Your task to perform on an android device: What's the weather? Image 0: 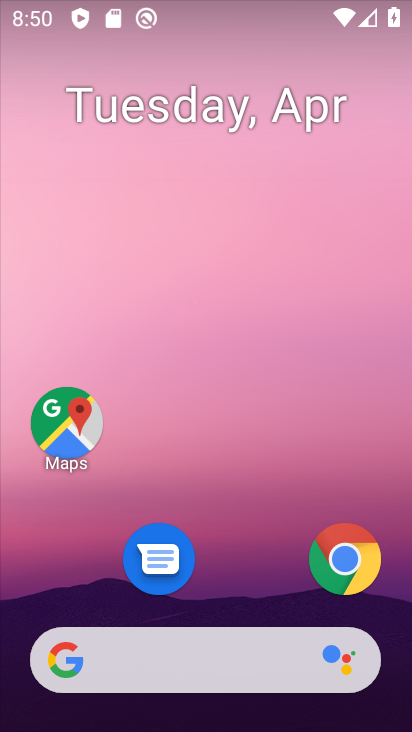
Step 0: drag from (189, 685) to (169, 149)
Your task to perform on an android device: What's the weather? Image 1: 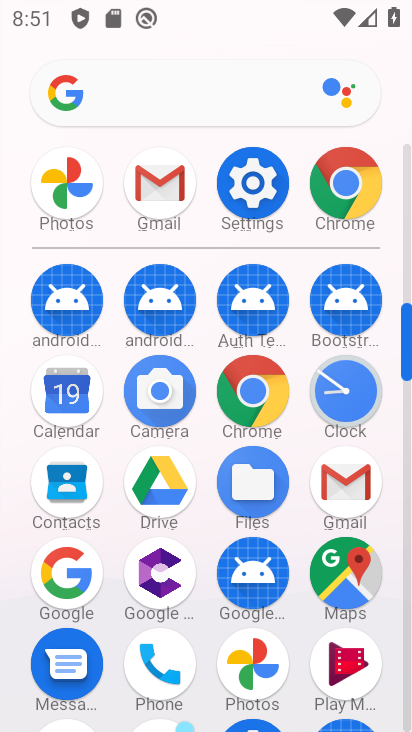
Step 1: click (74, 387)
Your task to perform on an android device: What's the weather? Image 2: 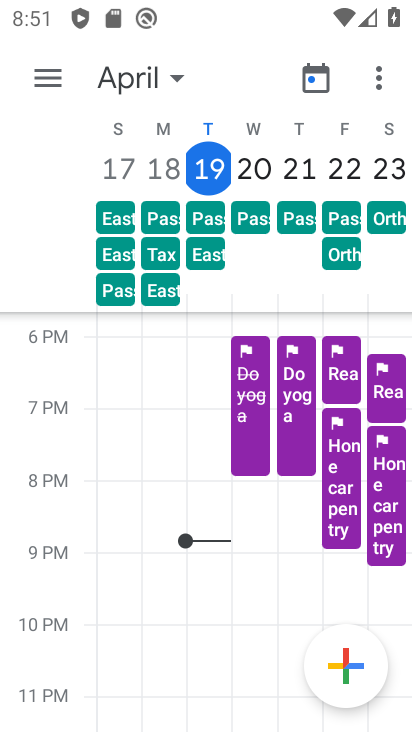
Step 2: click (51, 84)
Your task to perform on an android device: What's the weather? Image 3: 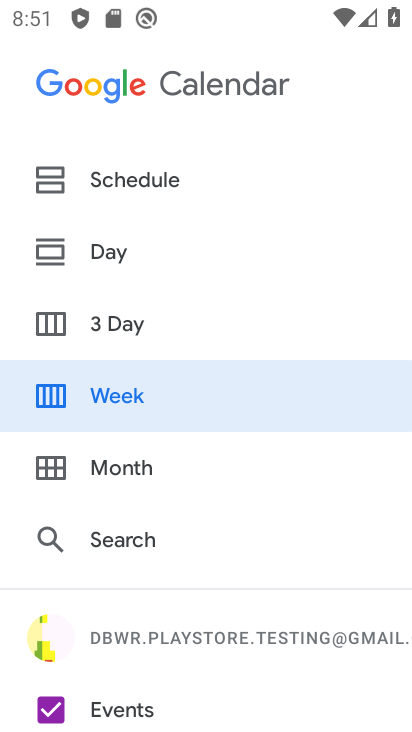
Step 3: press home button
Your task to perform on an android device: What's the weather? Image 4: 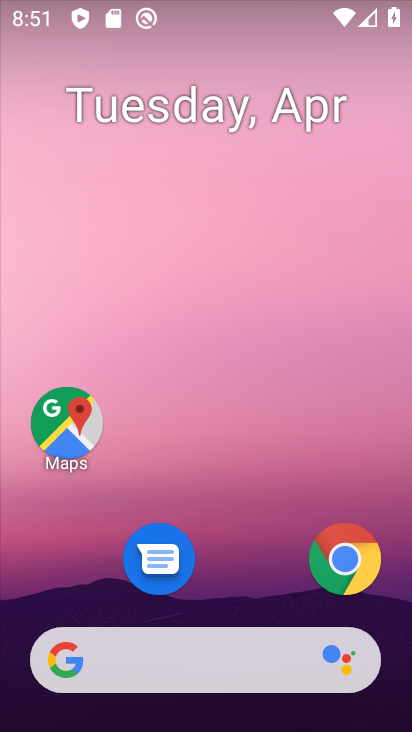
Step 4: click (196, 667)
Your task to perform on an android device: What's the weather? Image 5: 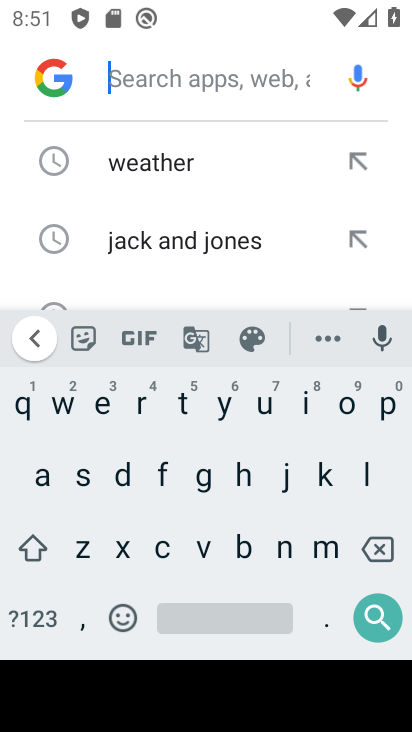
Step 5: click (169, 174)
Your task to perform on an android device: What's the weather? Image 6: 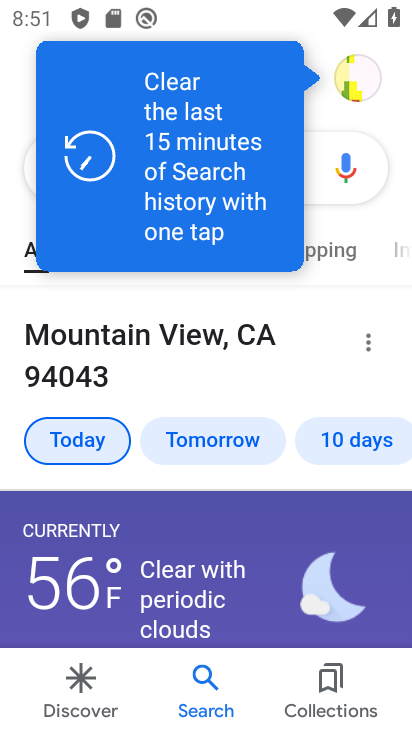
Step 6: task complete